Your task to perform on an android device: empty trash in google photos Image 0: 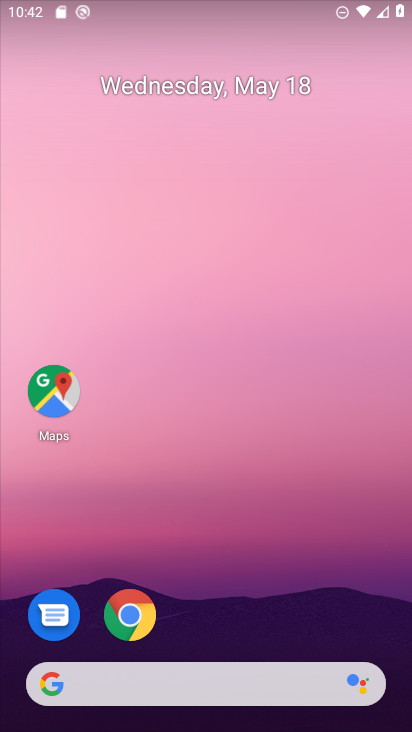
Step 0: drag from (232, 619) to (238, 94)
Your task to perform on an android device: empty trash in google photos Image 1: 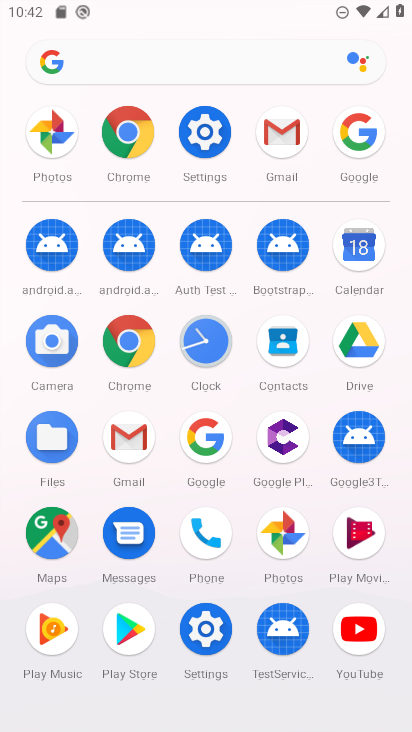
Step 1: click (284, 540)
Your task to perform on an android device: empty trash in google photos Image 2: 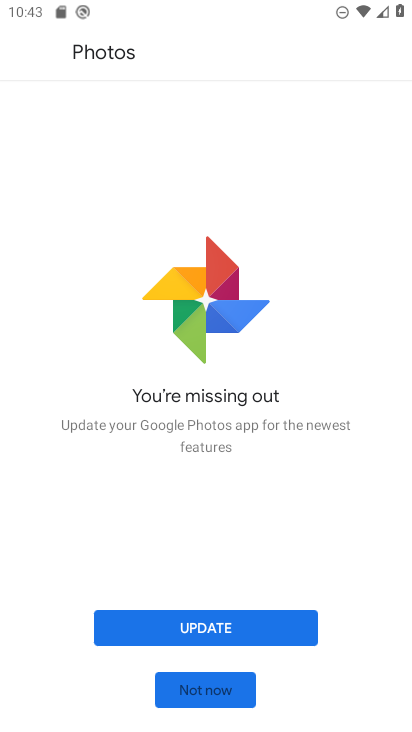
Step 2: click (240, 623)
Your task to perform on an android device: empty trash in google photos Image 3: 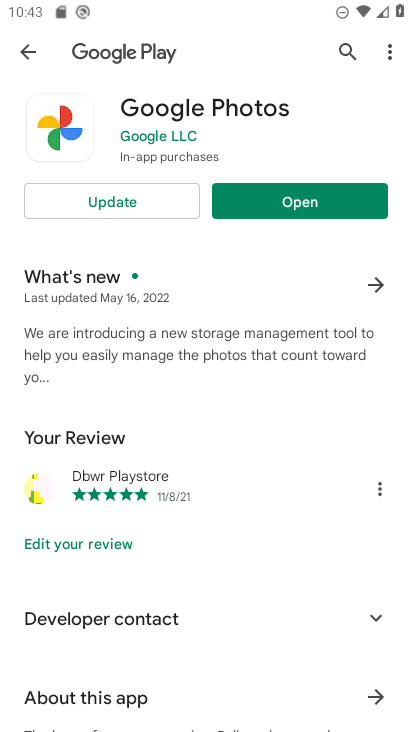
Step 3: click (108, 200)
Your task to perform on an android device: empty trash in google photos Image 4: 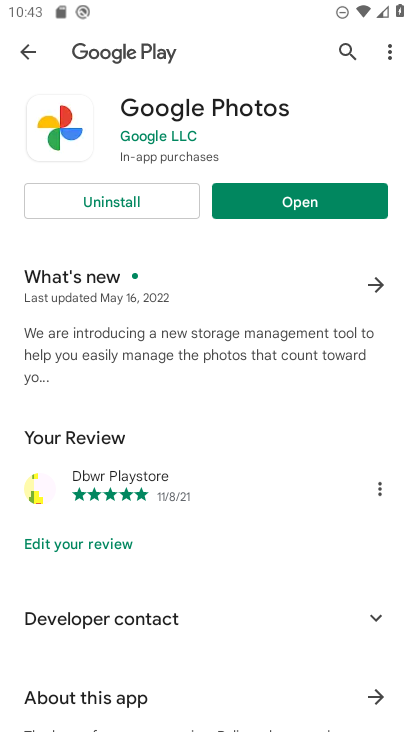
Step 4: click (246, 199)
Your task to perform on an android device: empty trash in google photos Image 5: 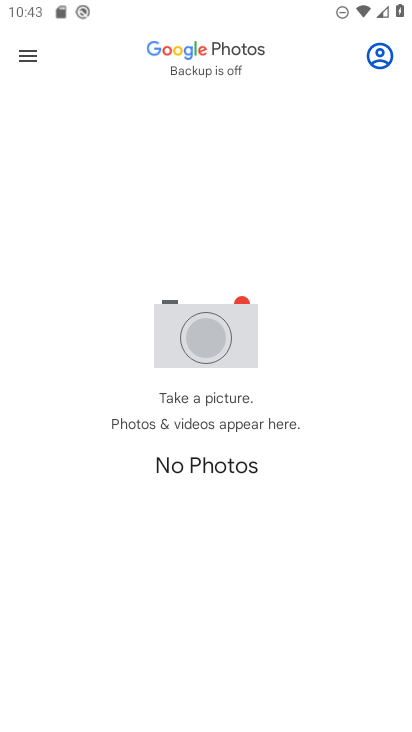
Step 5: click (26, 51)
Your task to perform on an android device: empty trash in google photos Image 6: 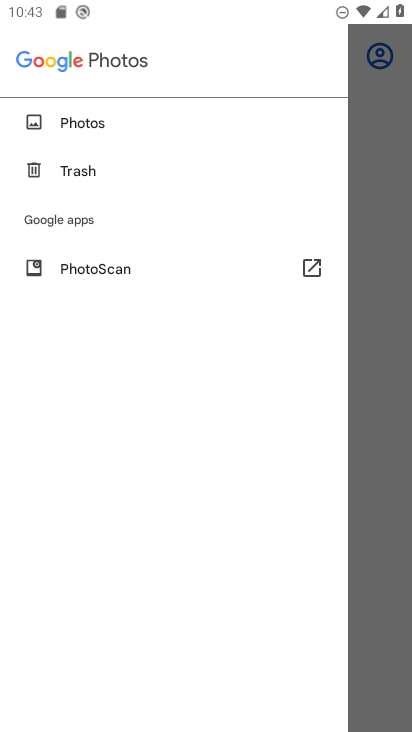
Step 6: click (71, 175)
Your task to perform on an android device: empty trash in google photos Image 7: 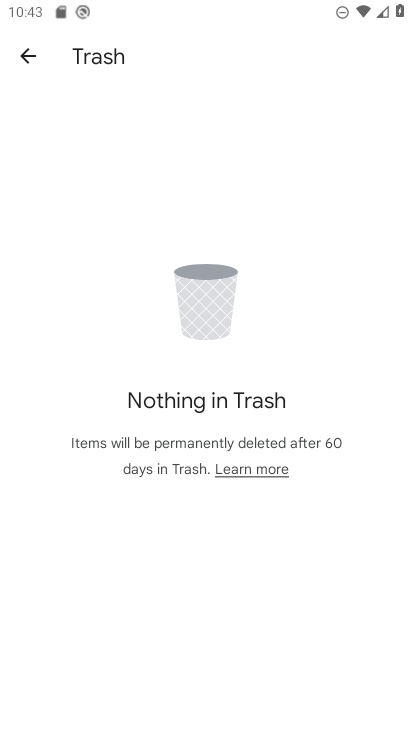
Step 7: task complete